Your task to perform on an android device: add a contact in the contacts app Image 0: 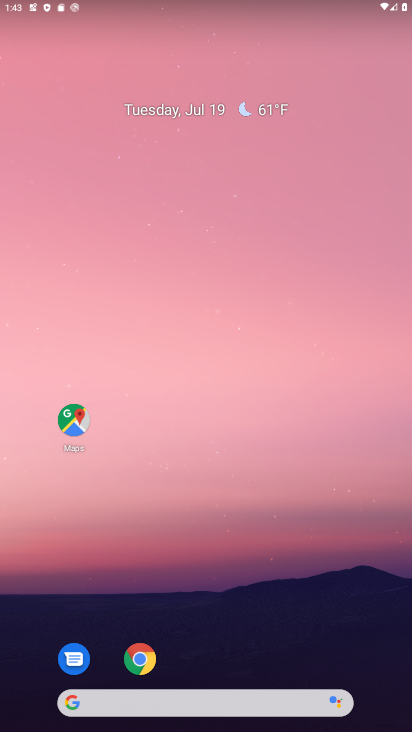
Step 0: drag from (262, 677) to (185, 246)
Your task to perform on an android device: add a contact in the contacts app Image 1: 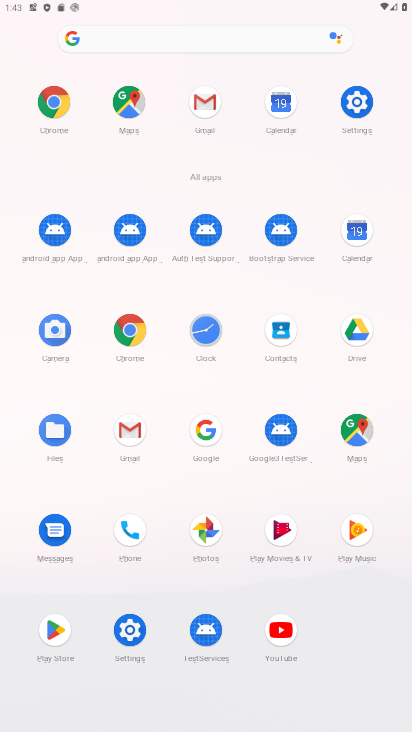
Step 1: click (285, 334)
Your task to perform on an android device: add a contact in the contacts app Image 2: 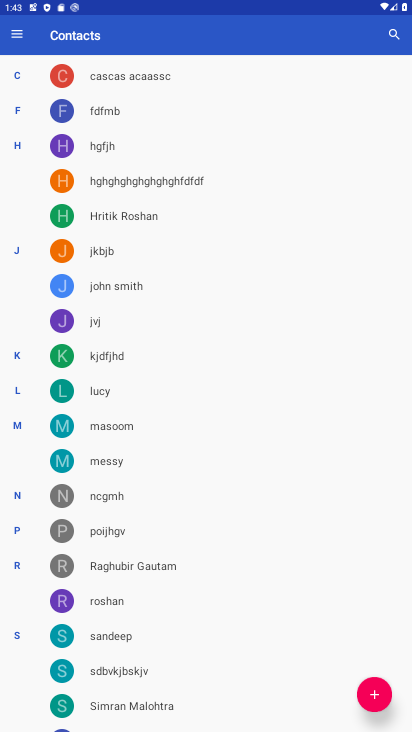
Step 2: click (382, 693)
Your task to perform on an android device: add a contact in the contacts app Image 3: 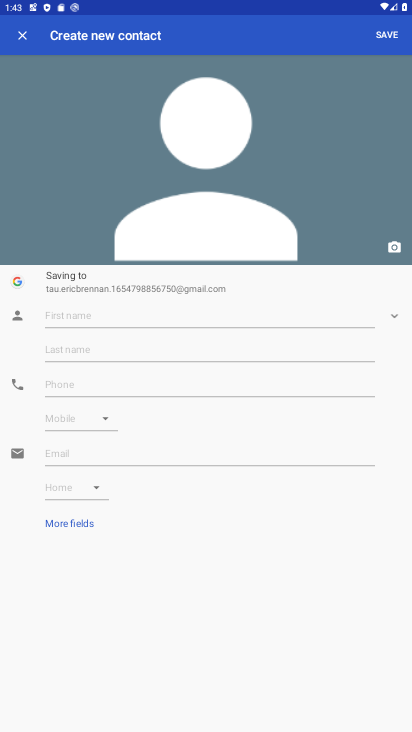
Step 3: click (126, 313)
Your task to perform on an android device: add a contact in the contacts app Image 4: 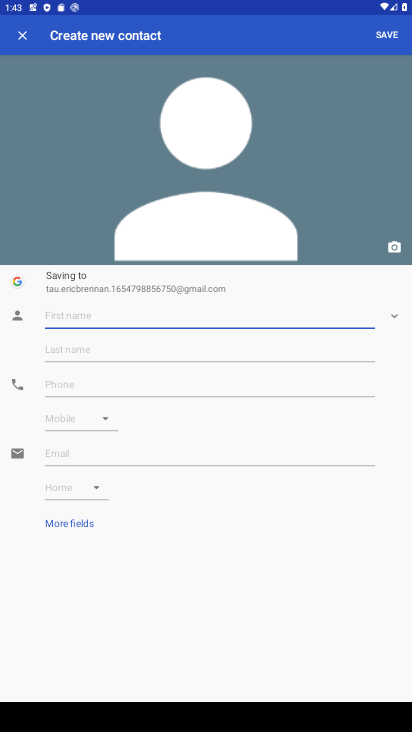
Step 4: type "rttv"
Your task to perform on an android device: add a contact in the contacts app Image 5: 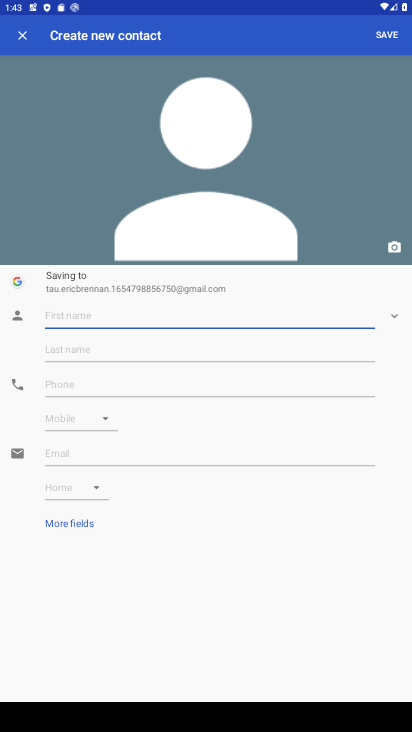
Step 5: click (83, 382)
Your task to perform on an android device: add a contact in the contacts app Image 6: 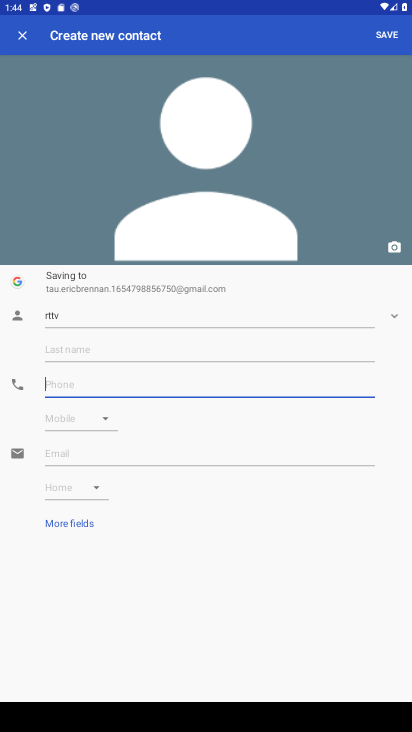
Step 6: type "5554443333"
Your task to perform on an android device: add a contact in the contacts app Image 7: 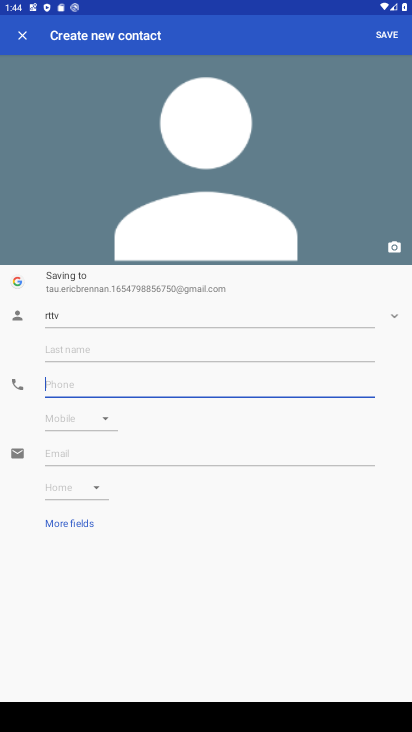
Step 7: click (386, 31)
Your task to perform on an android device: add a contact in the contacts app Image 8: 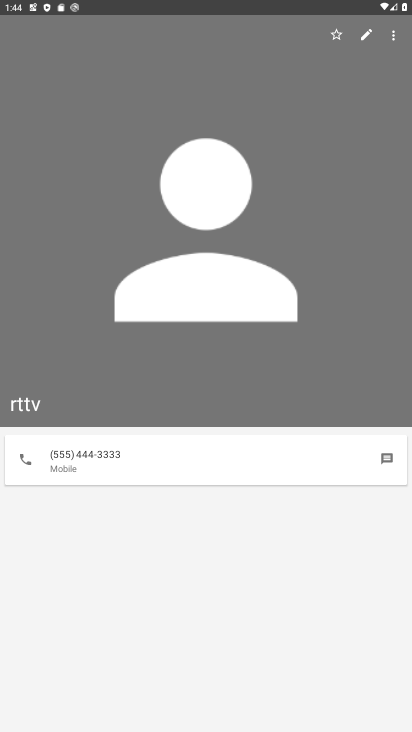
Step 8: task complete